Your task to perform on an android device: Turn on the flashlight Image 0: 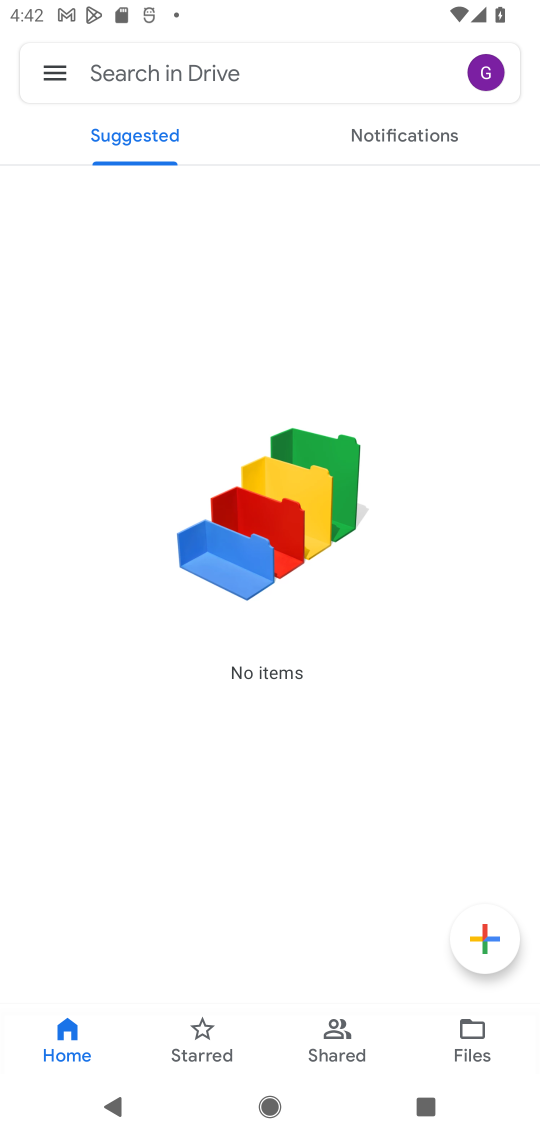
Step 0: press home button
Your task to perform on an android device: Turn on the flashlight Image 1: 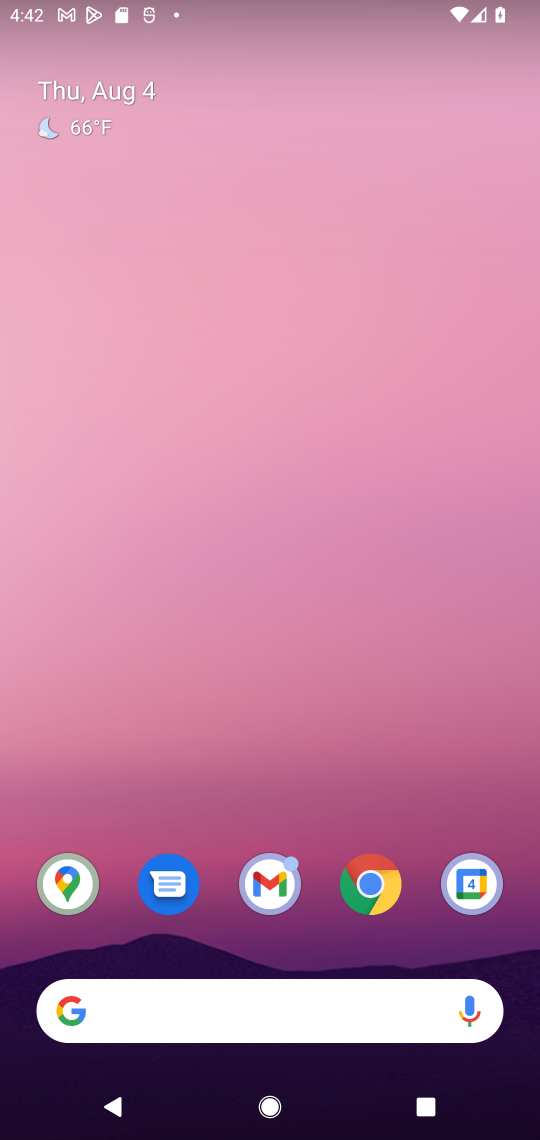
Step 1: drag from (215, 936) to (151, 39)
Your task to perform on an android device: Turn on the flashlight Image 2: 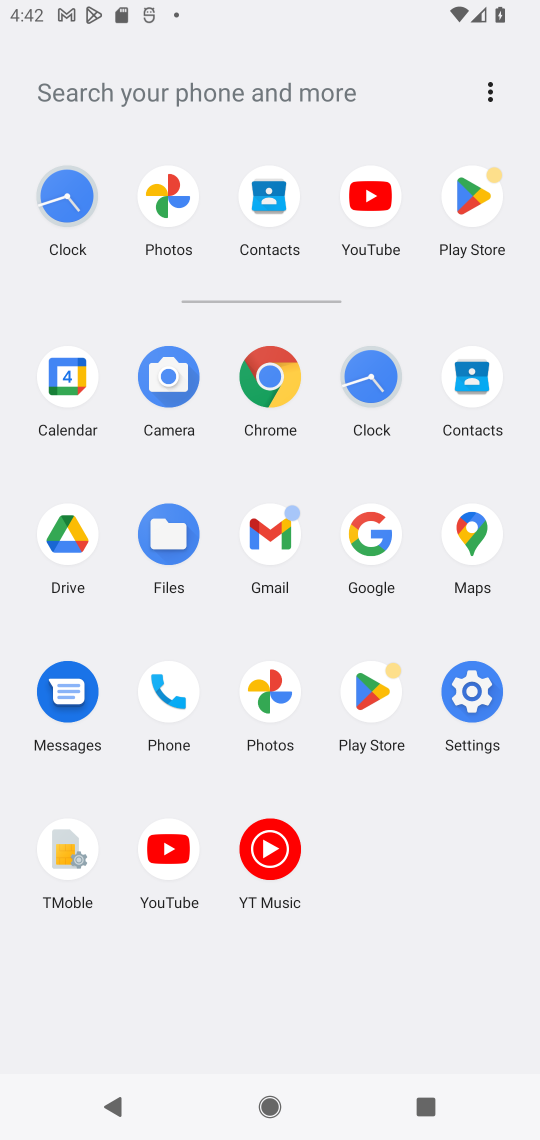
Step 2: click (480, 749)
Your task to perform on an android device: Turn on the flashlight Image 3: 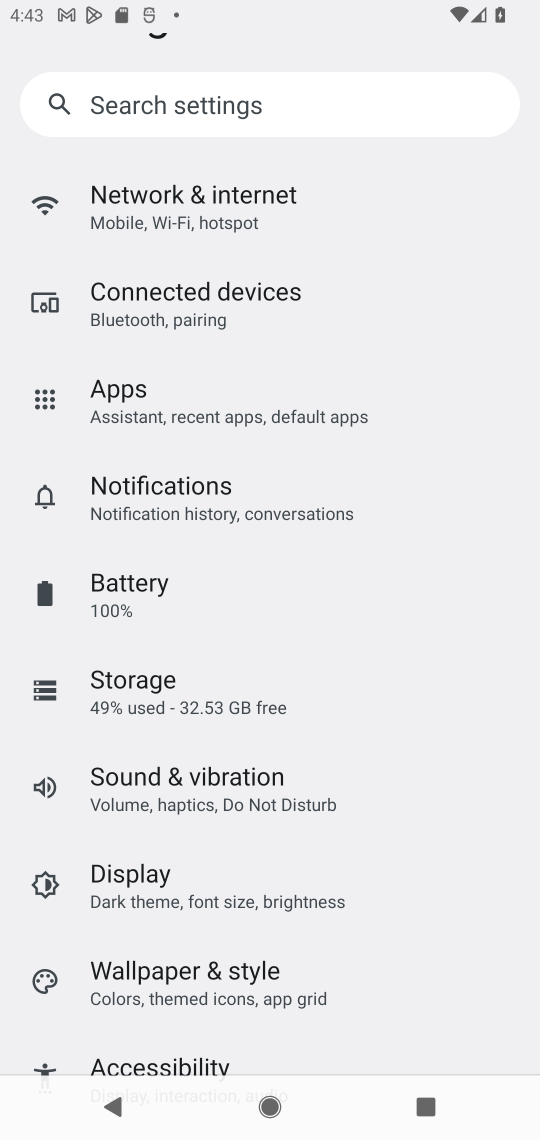
Step 3: task complete